Your task to perform on an android device: create a new album in the google photos Image 0: 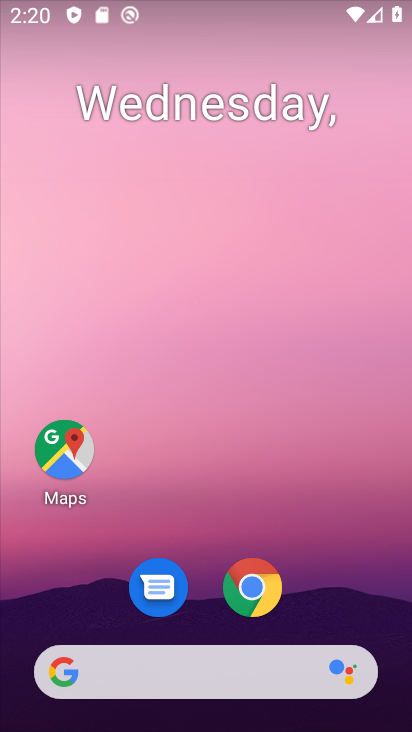
Step 0: drag from (374, 642) to (307, 273)
Your task to perform on an android device: create a new album in the google photos Image 1: 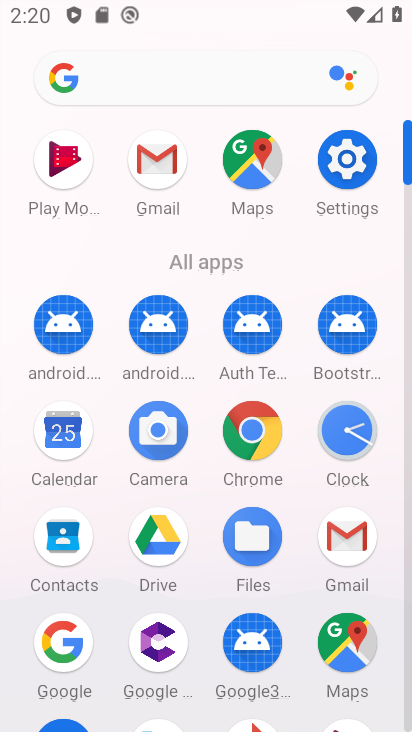
Step 1: click (410, 650)
Your task to perform on an android device: create a new album in the google photos Image 2: 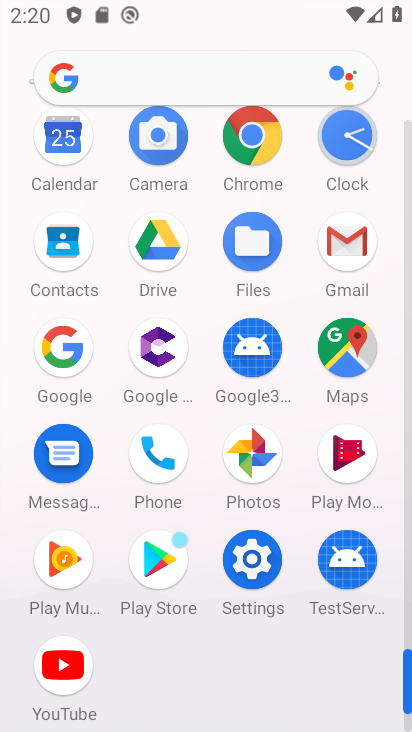
Step 2: click (261, 455)
Your task to perform on an android device: create a new album in the google photos Image 3: 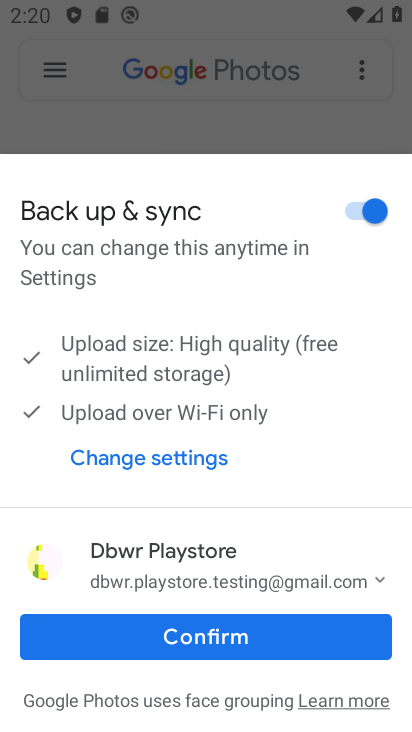
Step 3: click (278, 634)
Your task to perform on an android device: create a new album in the google photos Image 4: 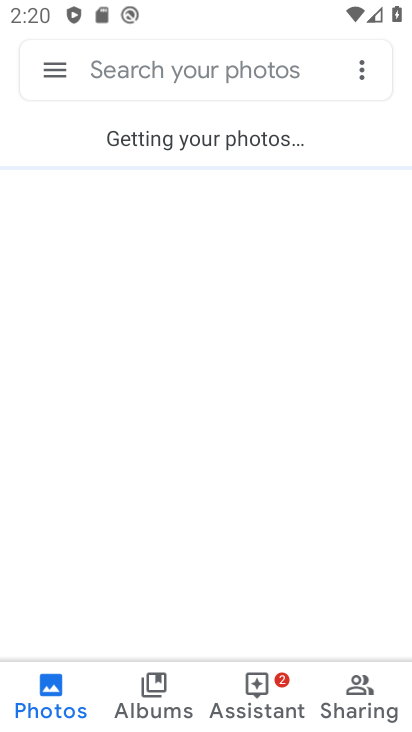
Step 4: click (244, 697)
Your task to perform on an android device: create a new album in the google photos Image 5: 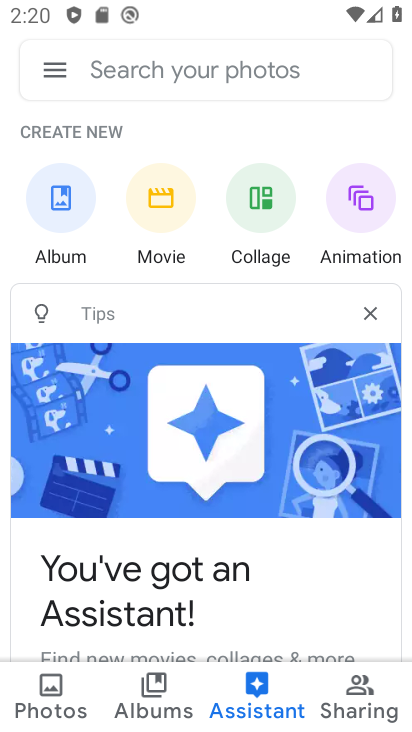
Step 5: click (67, 197)
Your task to perform on an android device: create a new album in the google photos Image 6: 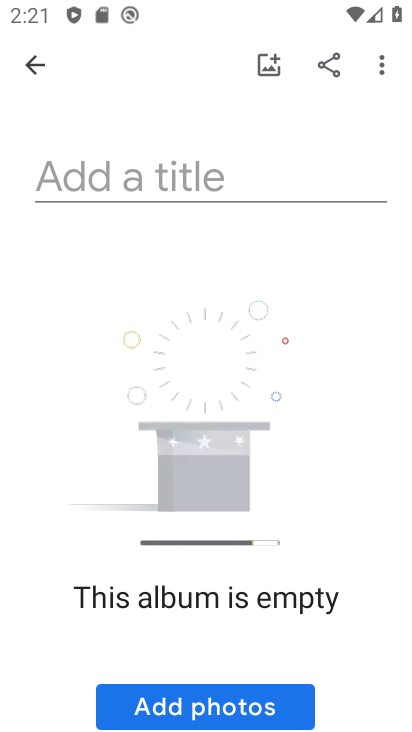
Step 6: click (100, 190)
Your task to perform on an android device: create a new album in the google photos Image 7: 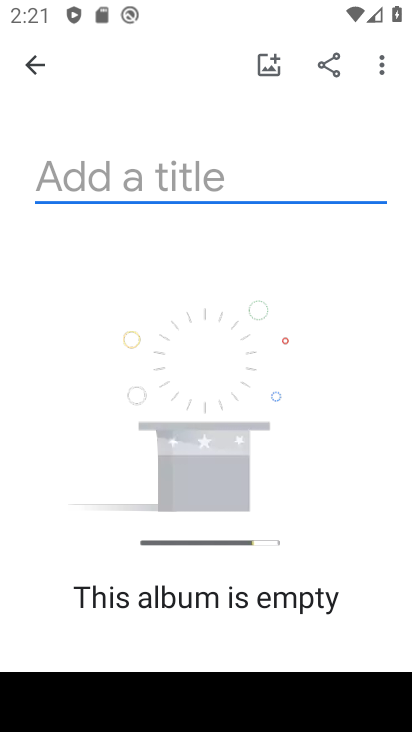
Step 7: type "jndkjnd"
Your task to perform on an android device: create a new album in the google photos Image 8: 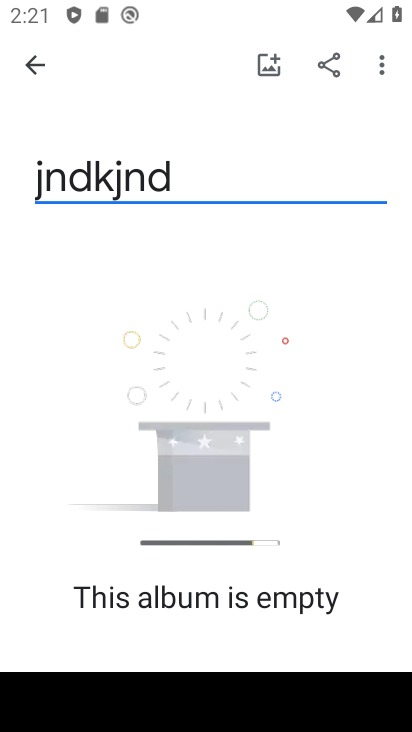
Step 8: drag from (389, 599) to (330, 270)
Your task to perform on an android device: create a new album in the google photos Image 9: 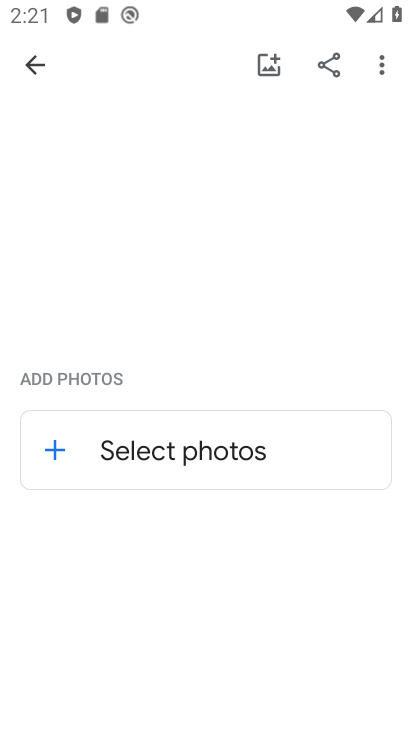
Step 9: click (303, 444)
Your task to perform on an android device: create a new album in the google photos Image 10: 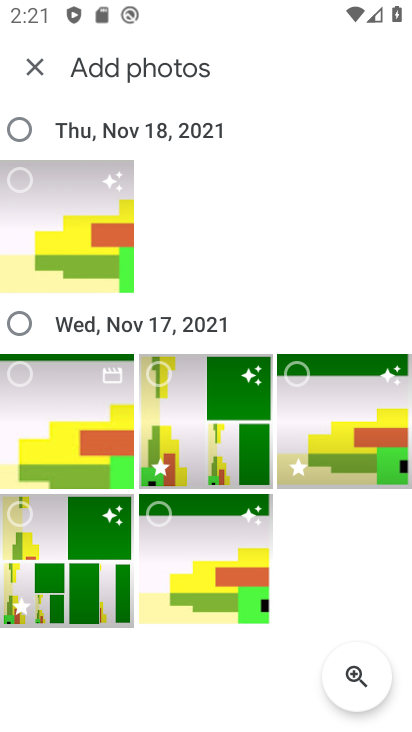
Step 10: click (215, 447)
Your task to perform on an android device: create a new album in the google photos Image 11: 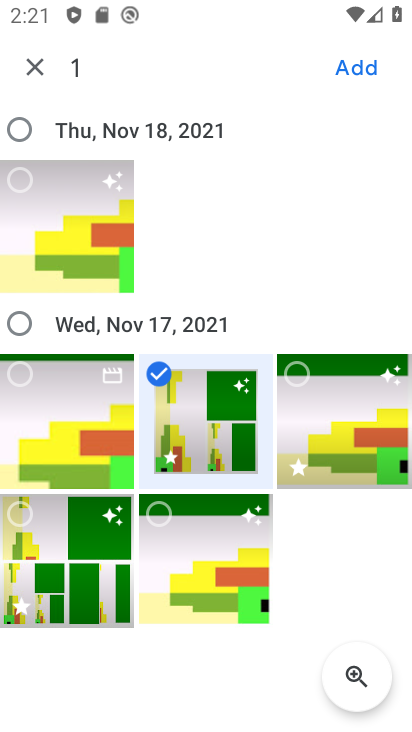
Step 11: click (357, 419)
Your task to perform on an android device: create a new album in the google photos Image 12: 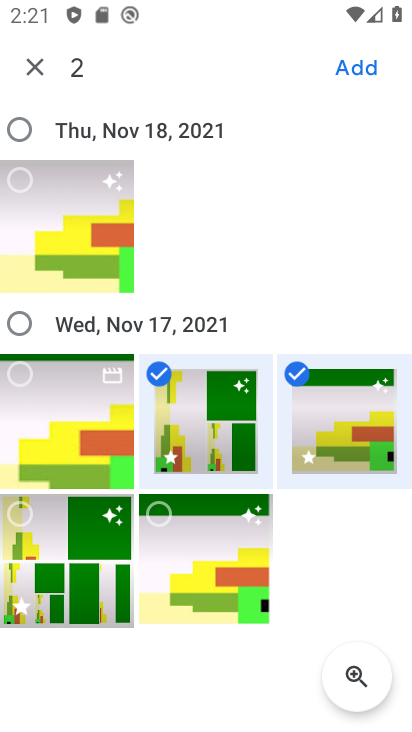
Step 12: click (359, 72)
Your task to perform on an android device: create a new album in the google photos Image 13: 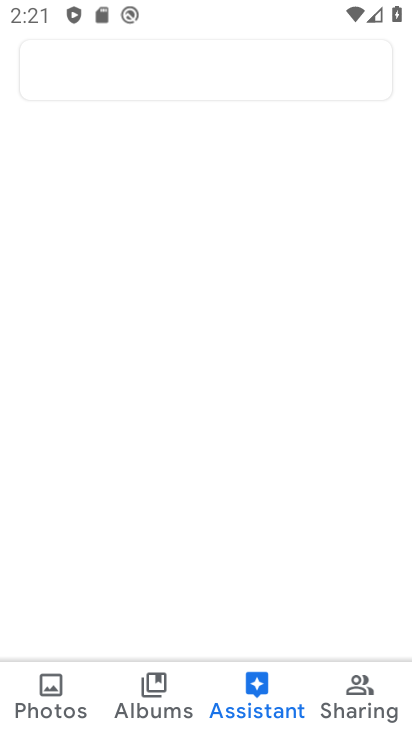
Step 13: task complete